Your task to perform on an android device: add a label to a message in the gmail app Image 0: 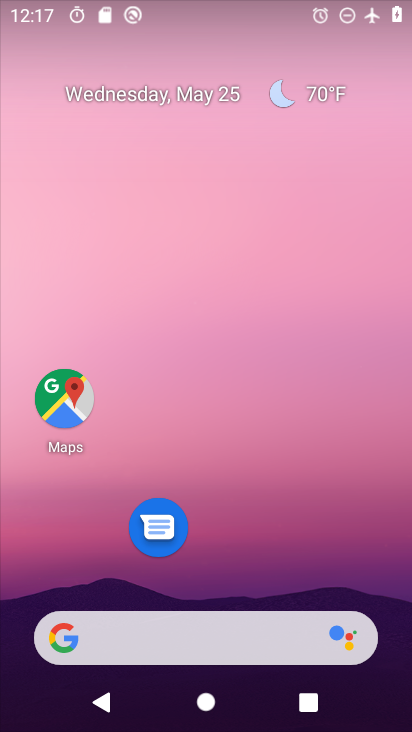
Step 0: drag from (221, 565) to (240, 64)
Your task to perform on an android device: add a label to a message in the gmail app Image 1: 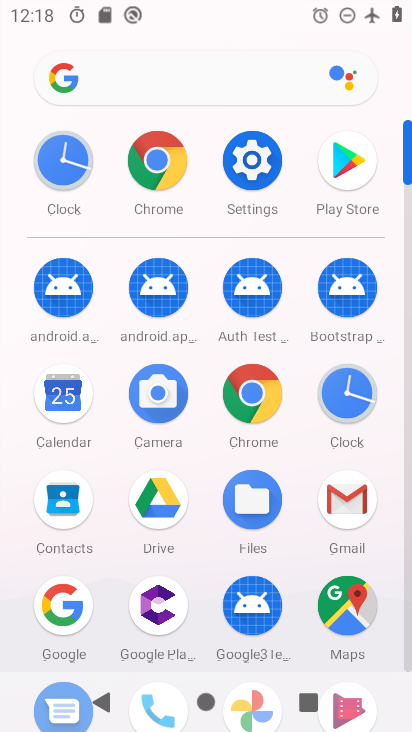
Step 1: click (344, 509)
Your task to perform on an android device: add a label to a message in the gmail app Image 2: 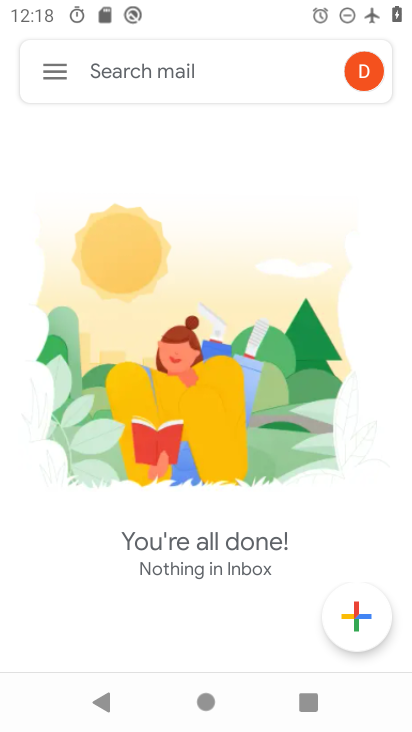
Step 2: click (63, 63)
Your task to perform on an android device: add a label to a message in the gmail app Image 3: 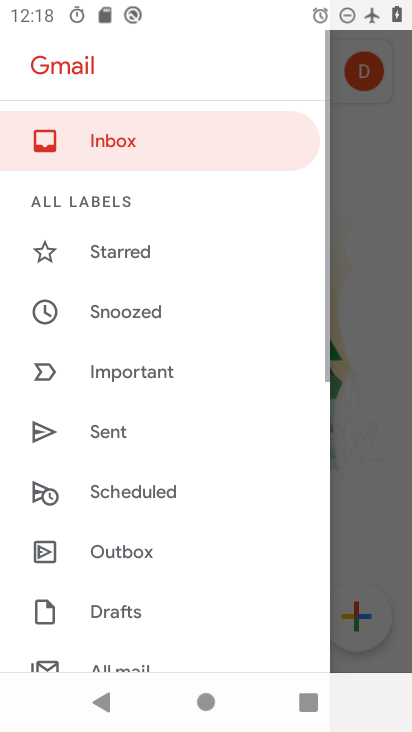
Step 3: drag from (183, 619) to (173, 468)
Your task to perform on an android device: add a label to a message in the gmail app Image 4: 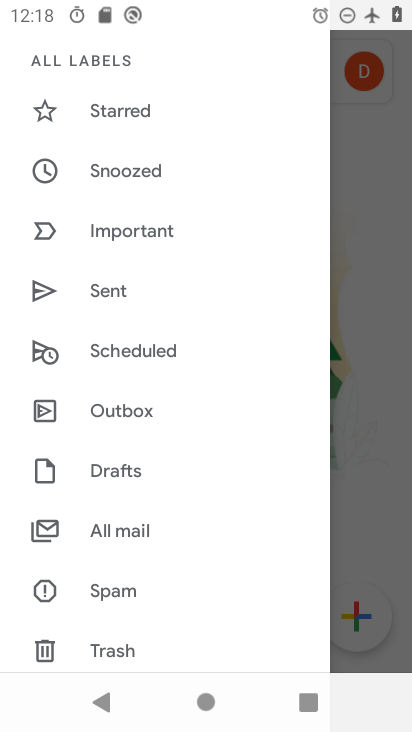
Step 4: click (107, 538)
Your task to perform on an android device: add a label to a message in the gmail app Image 5: 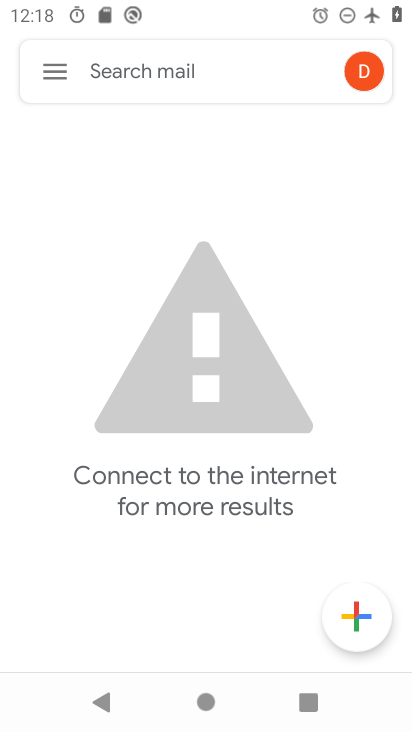
Step 5: task complete